Your task to perform on an android device: Open Google Maps Image 0: 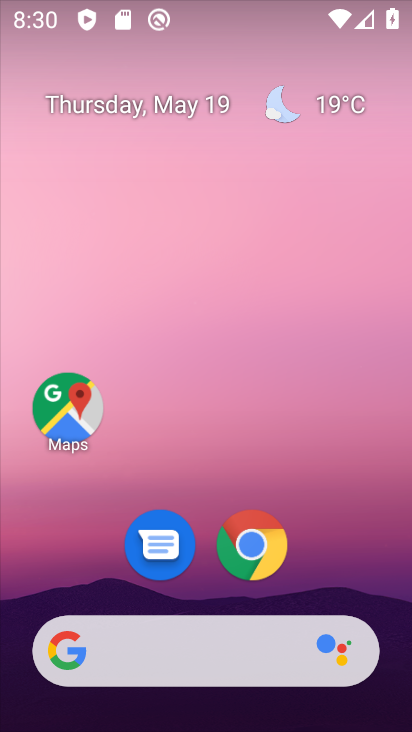
Step 0: click (66, 422)
Your task to perform on an android device: Open Google Maps Image 1: 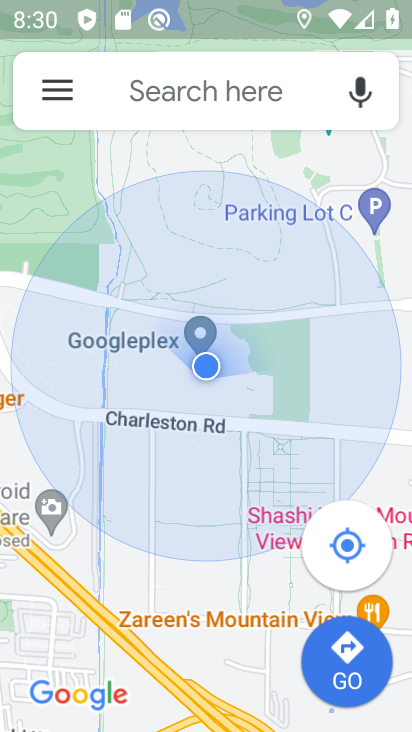
Step 1: task complete